Your task to perform on an android device: Open Reddit.com Image 0: 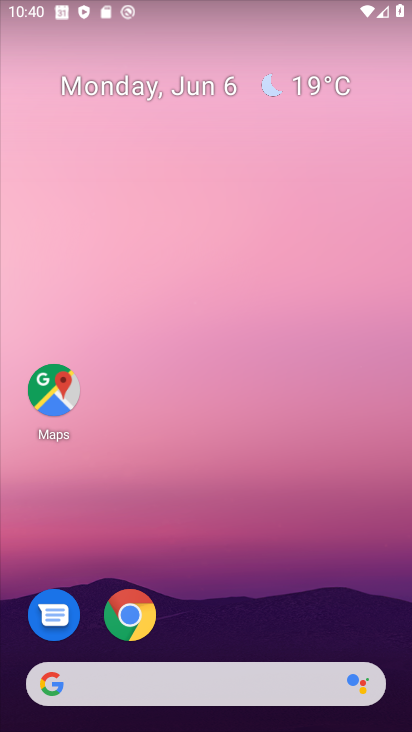
Step 0: click (254, 669)
Your task to perform on an android device: Open Reddit.com Image 1: 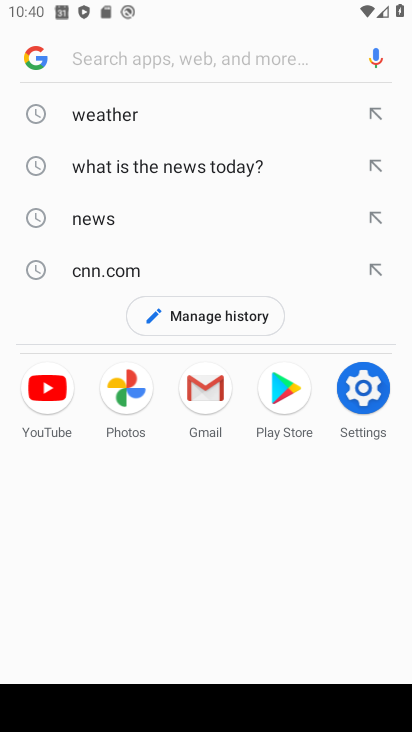
Step 1: type "reddit.com"
Your task to perform on an android device: Open Reddit.com Image 2: 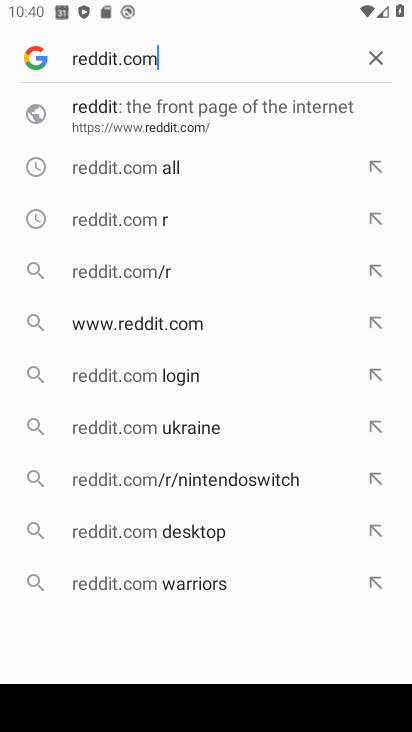
Step 2: click (147, 99)
Your task to perform on an android device: Open Reddit.com Image 3: 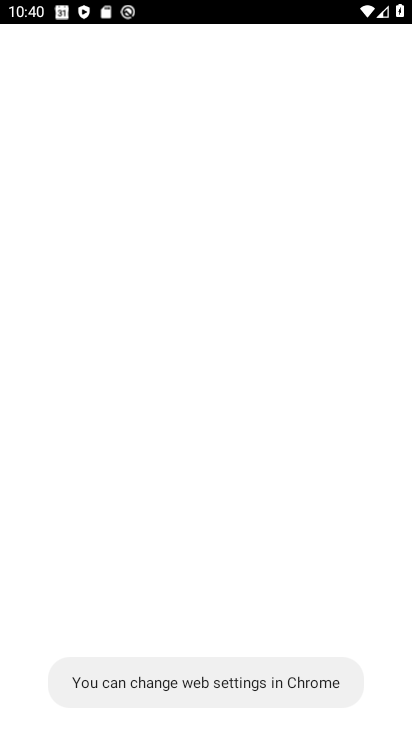
Step 3: task complete